Your task to perform on an android device: Go to display settings Image 0: 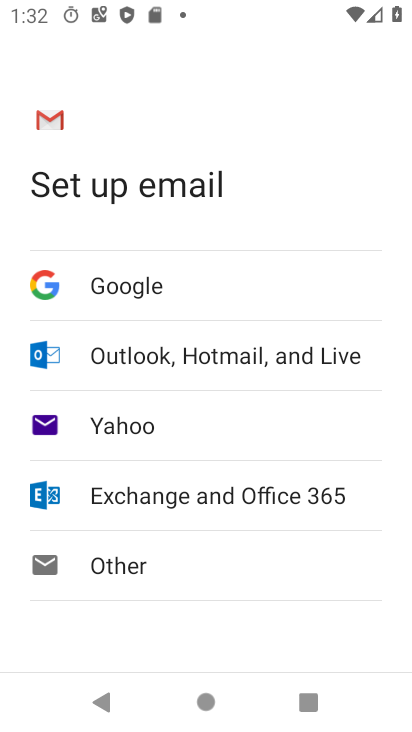
Step 0: press home button
Your task to perform on an android device: Go to display settings Image 1: 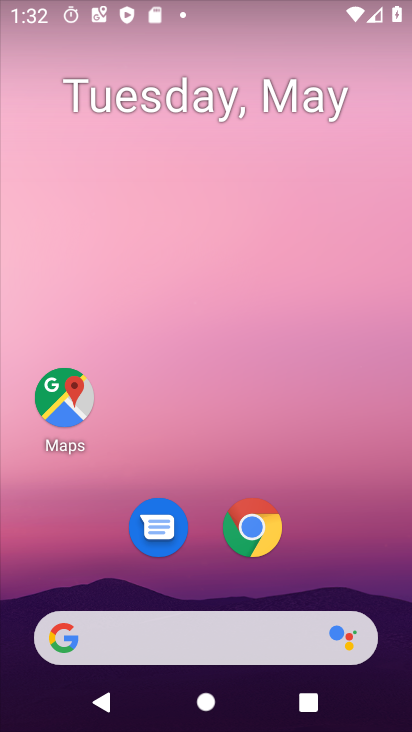
Step 1: drag from (197, 668) to (223, 334)
Your task to perform on an android device: Go to display settings Image 2: 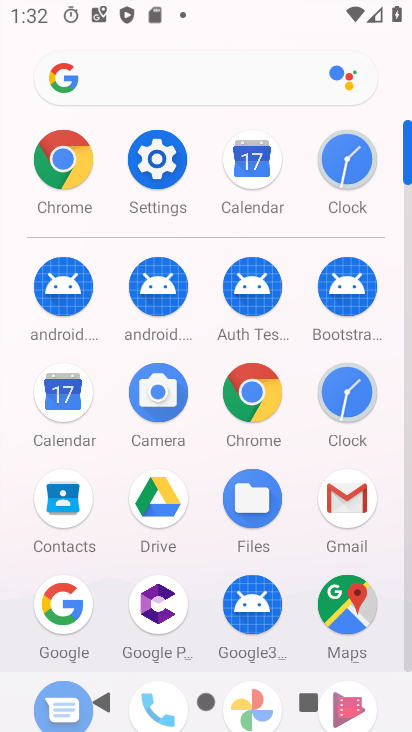
Step 2: click (162, 174)
Your task to perform on an android device: Go to display settings Image 3: 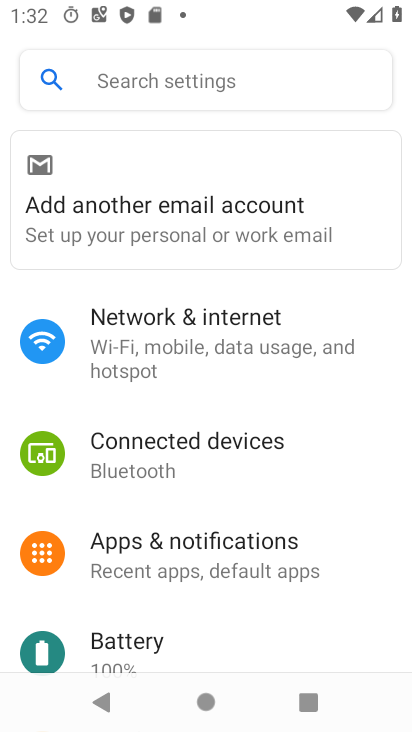
Step 3: drag from (153, 603) to (233, 382)
Your task to perform on an android device: Go to display settings Image 4: 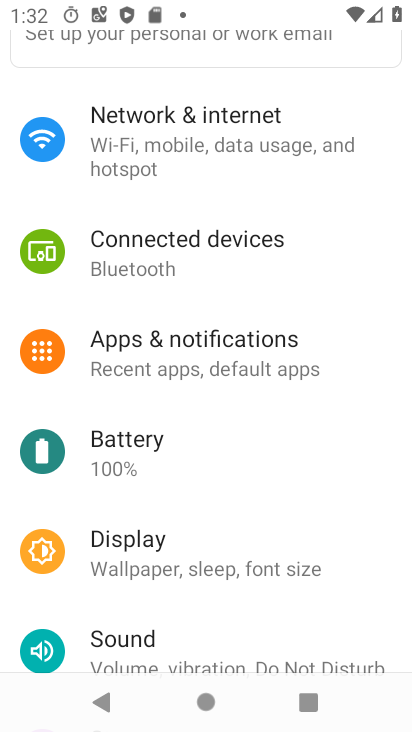
Step 4: click (163, 556)
Your task to perform on an android device: Go to display settings Image 5: 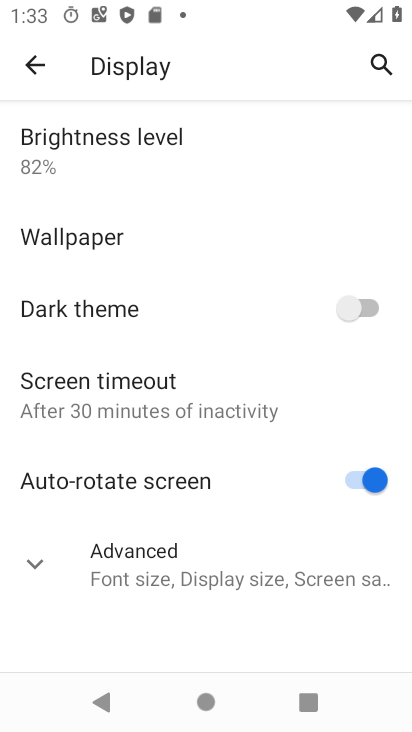
Step 5: task complete